Your task to perform on an android device: allow cookies in the chrome app Image 0: 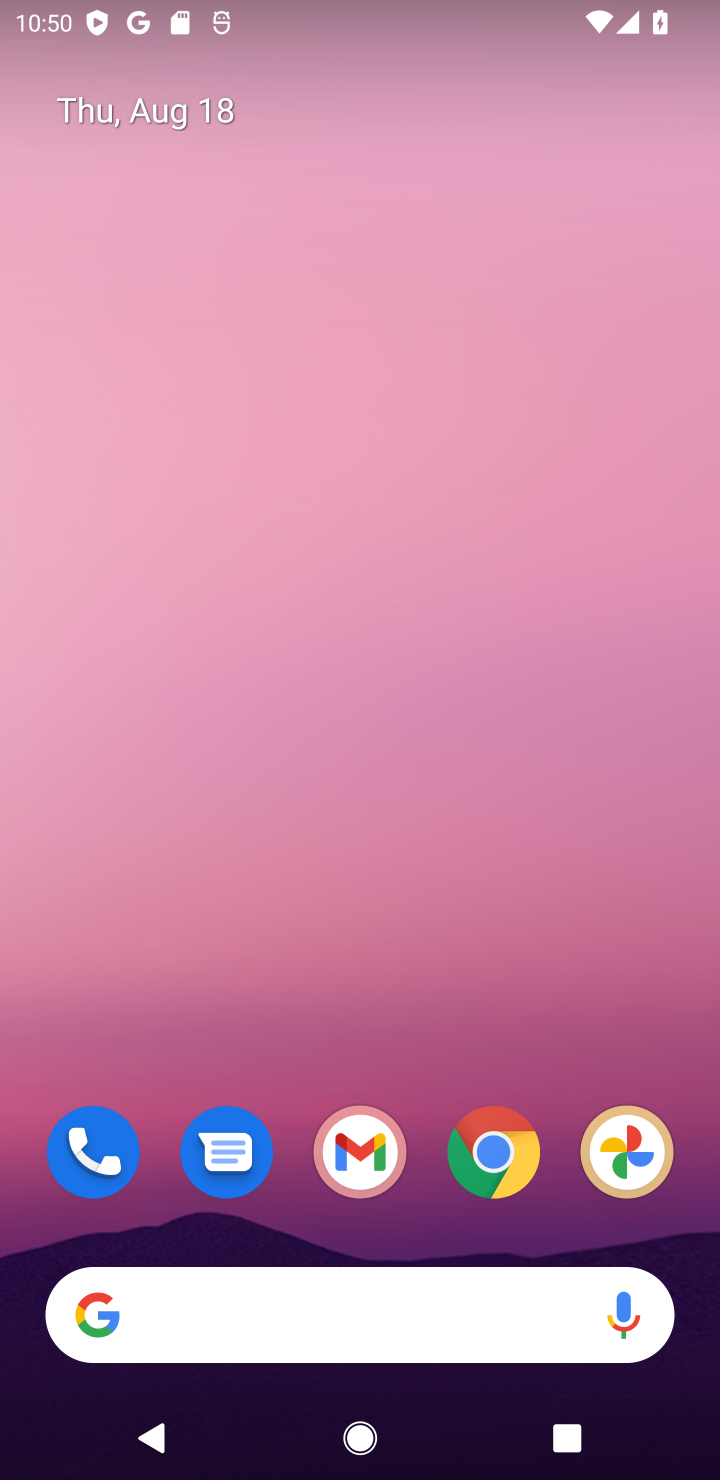
Step 0: press home button
Your task to perform on an android device: allow cookies in the chrome app Image 1: 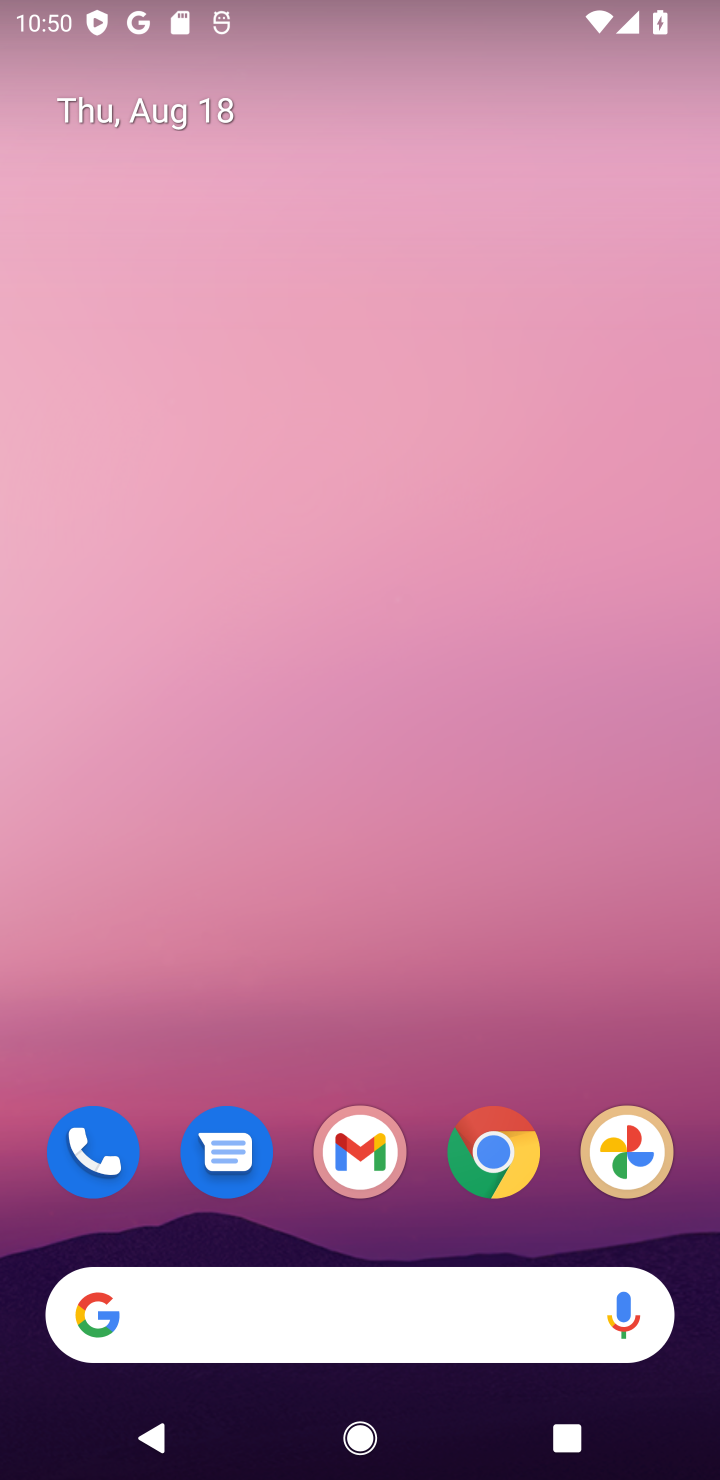
Step 1: drag from (430, 1011) to (416, 197)
Your task to perform on an android device: allow cookies in the chrome app Image 2: 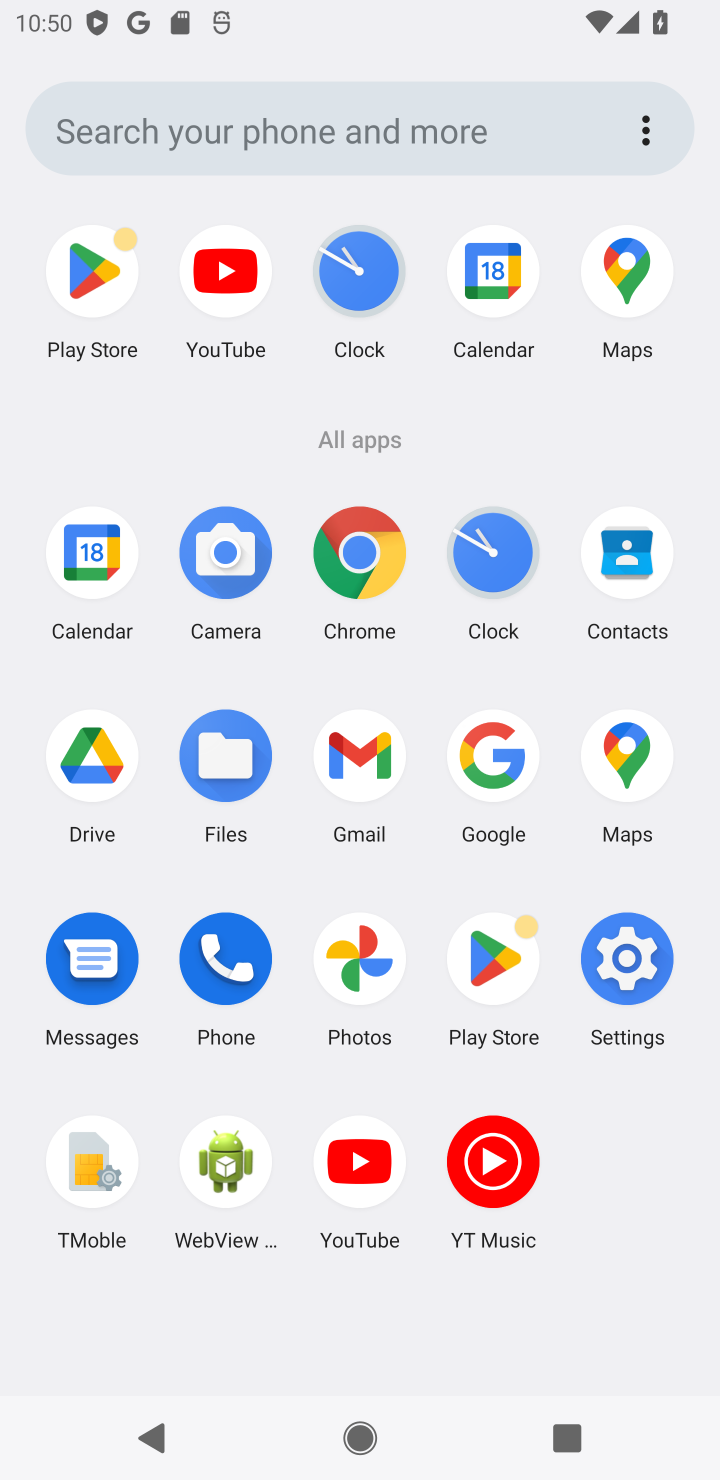
Step 2: click (361, 557)
Your task to perform on an android device: allow cookies in the chrome app Image 3: 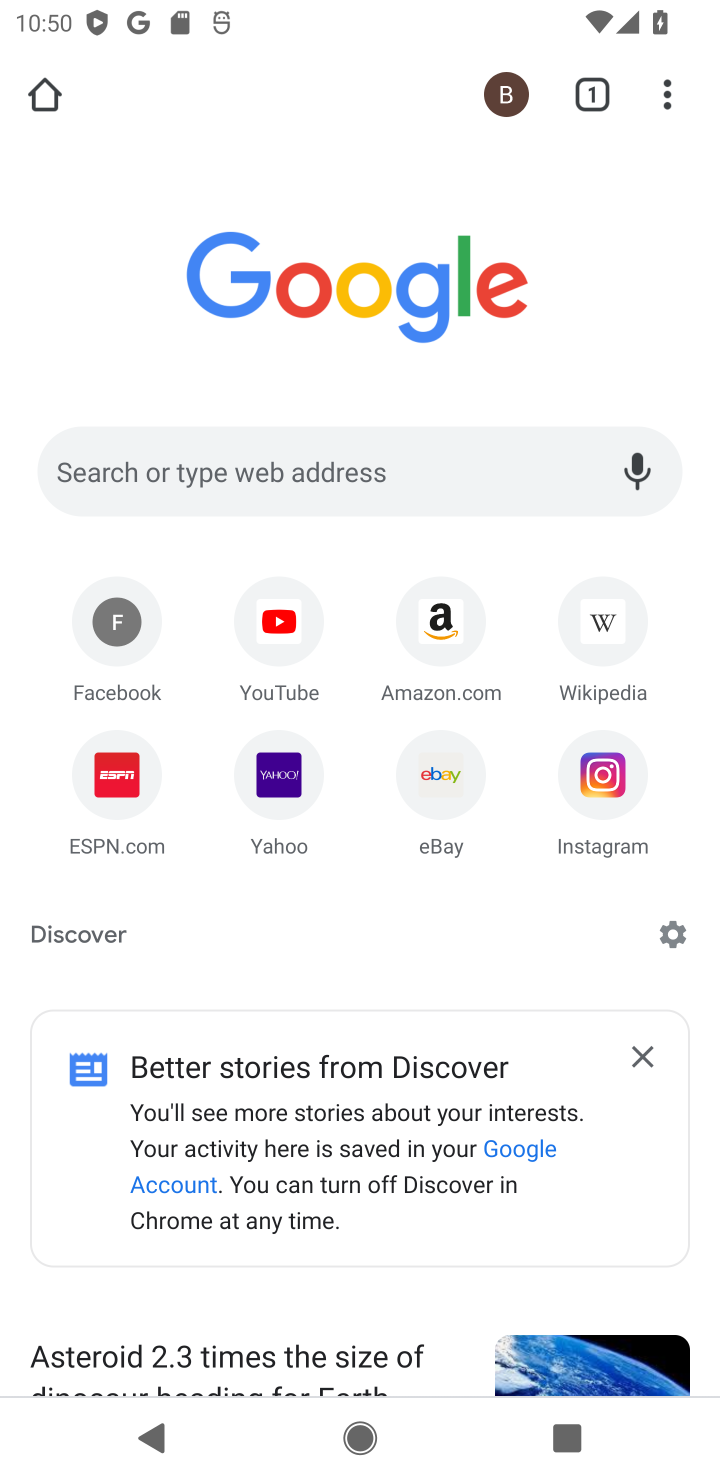
Step 3: drag from (661, 88) to (400, 862)
Your task to perform on an android device: allow cookies in the chrome app Image 4: 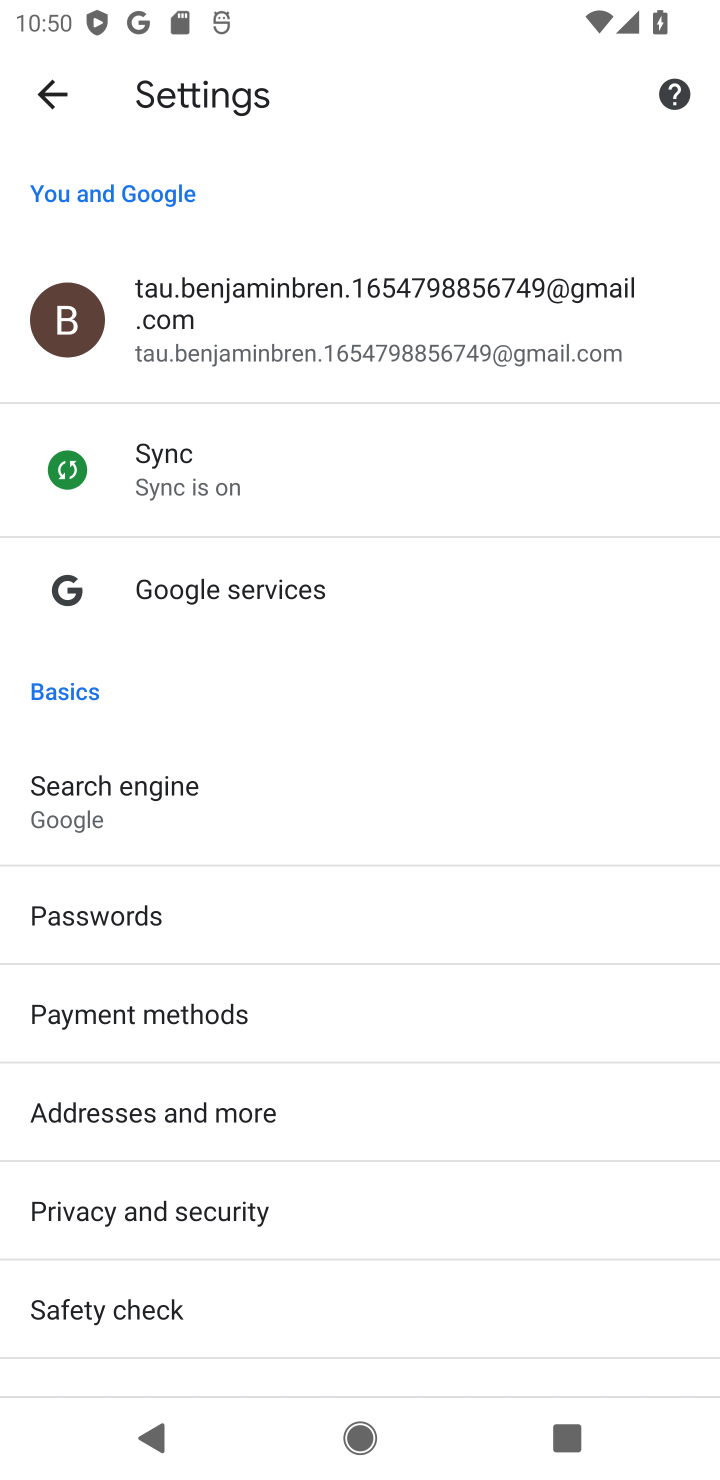
Step 4: drag from (286, 1141) to (315, 534)
Your task to perform on an android device: allow cookies in the chrome app Image 5: 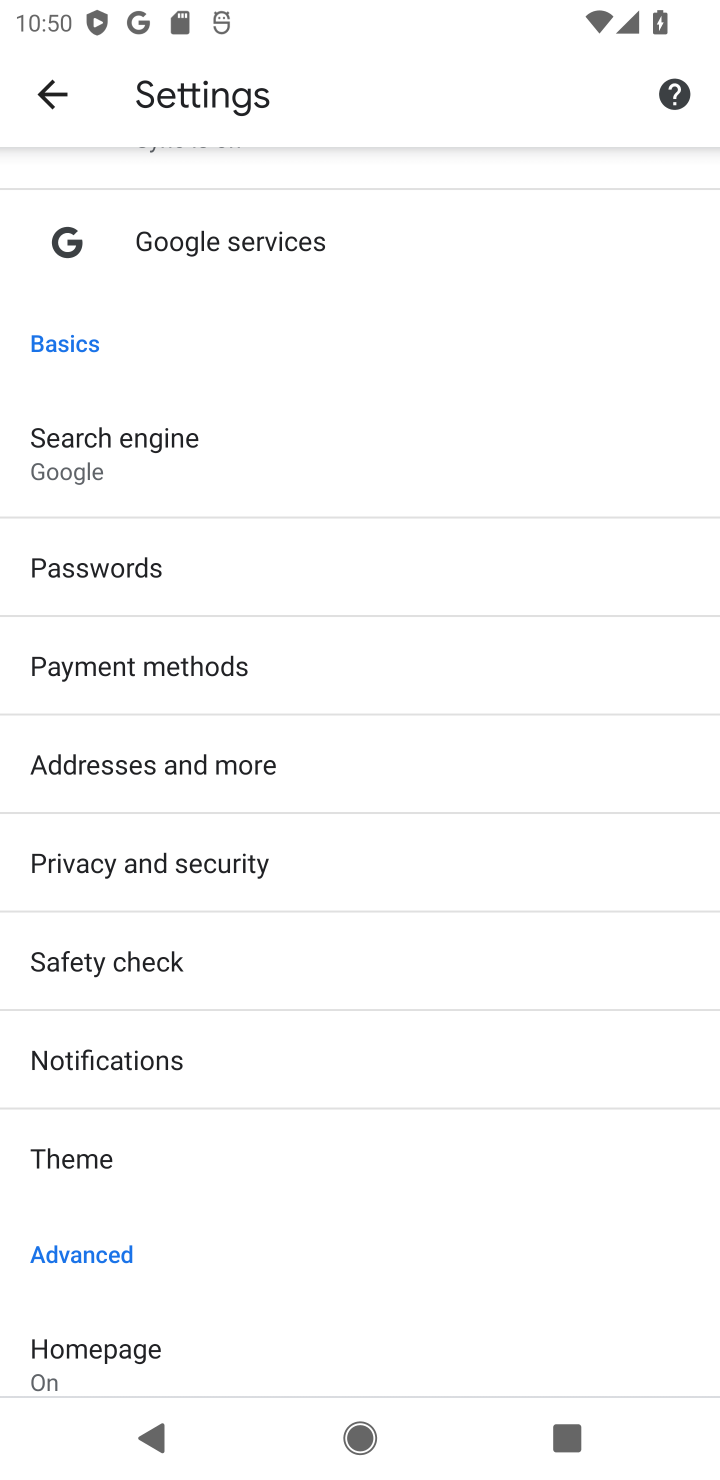
Step 5: drag from (328, 1141) to (369, 517)
Your task to perform on an android device: allow cookies in the chrome app Image 6: 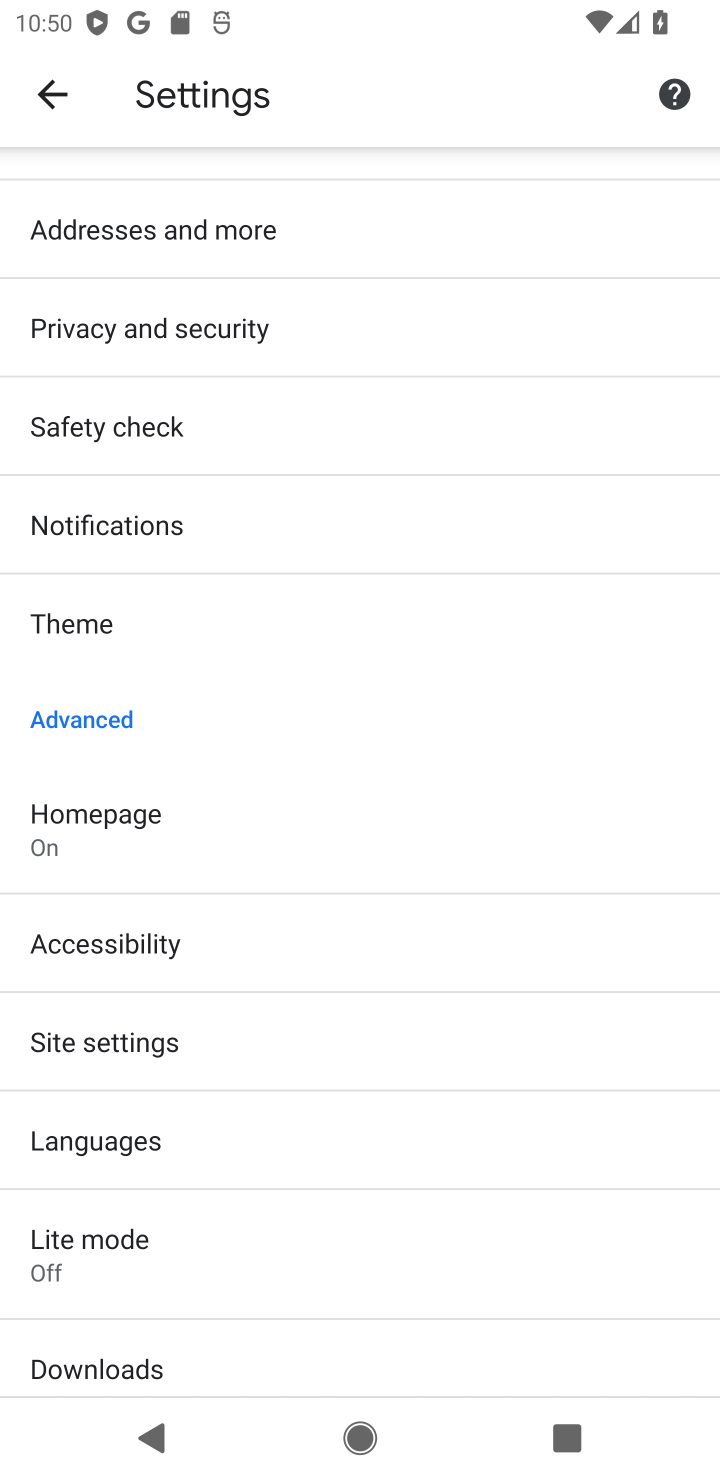
Step 6: click (39, 1048)
Your task to perform on an android device: allow cookies in the chrome app Image 7: 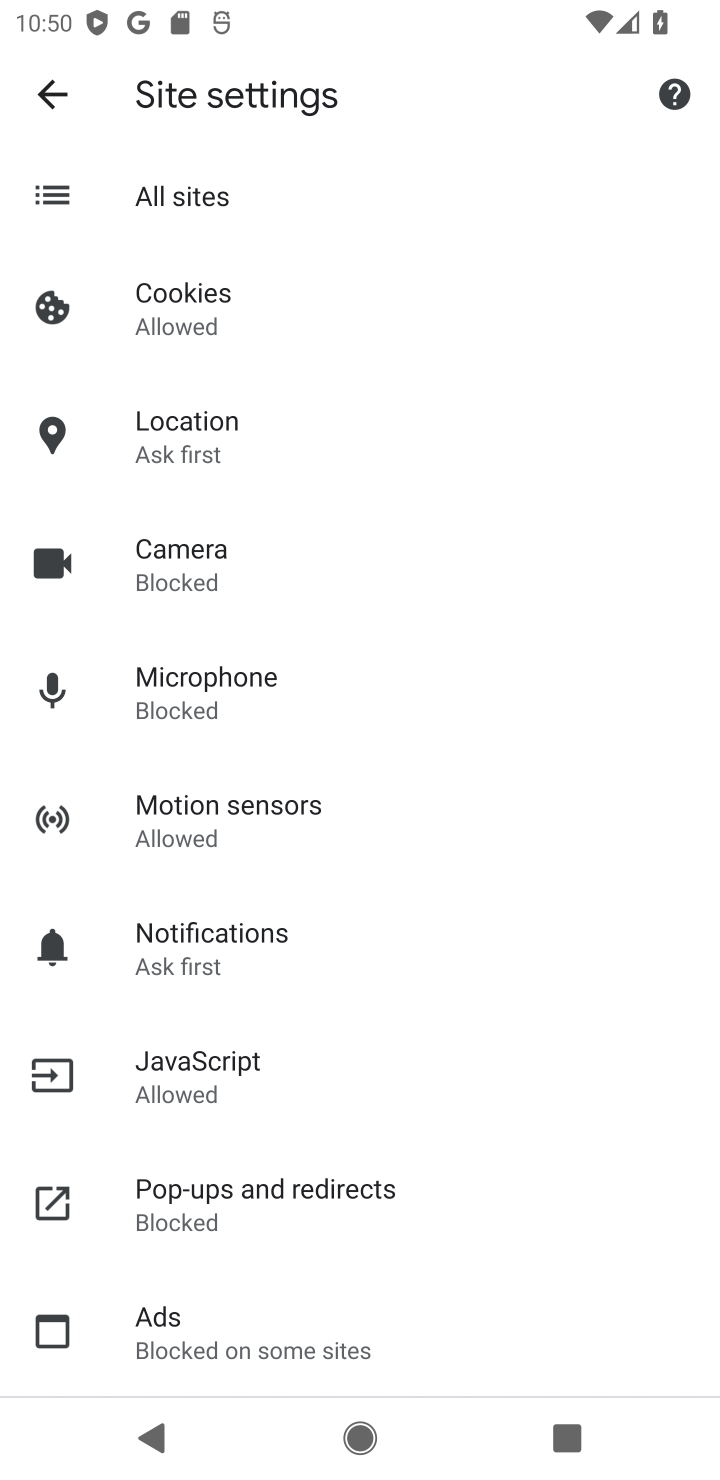
Step 7: click (186, 291)
Your task to perform on an android device: allow cookies in the chrome app Image 8: 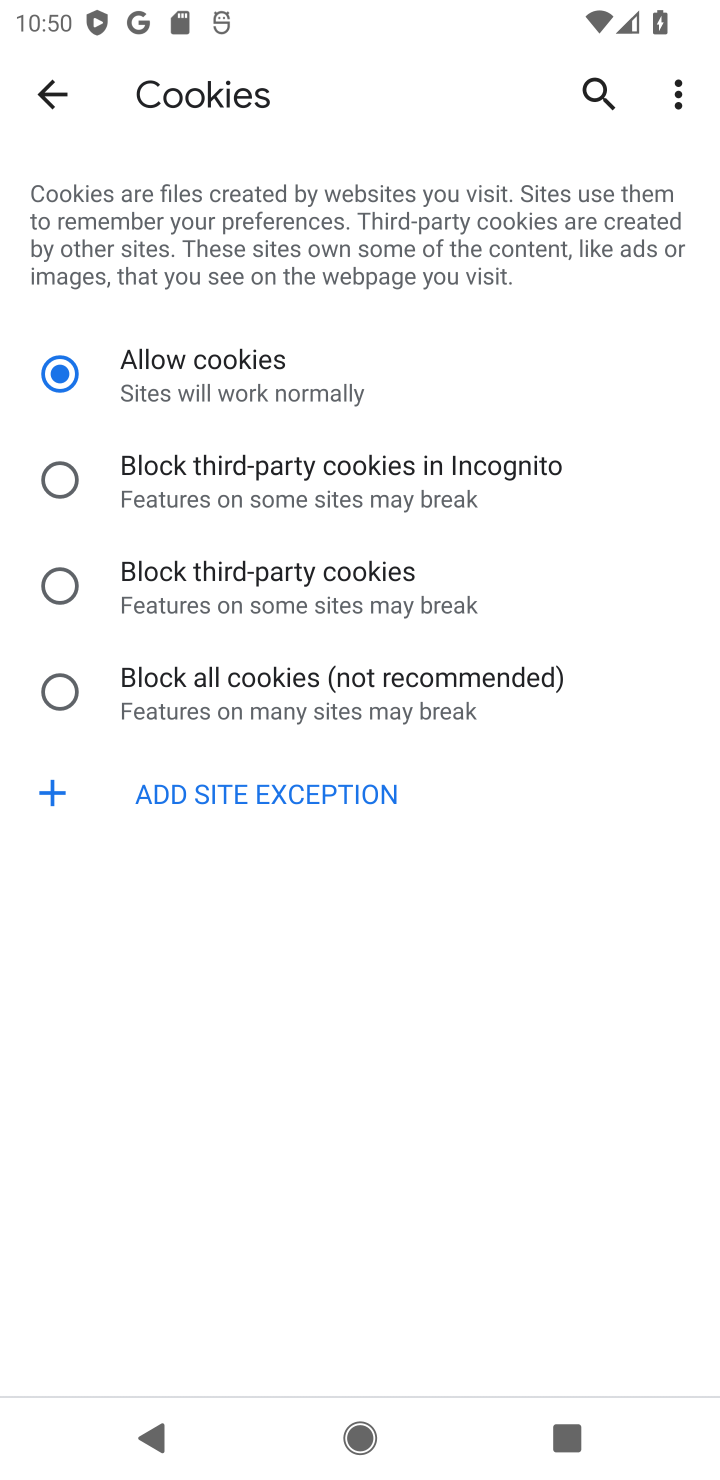
Step 8: task complete